Your task to perform on an android device: change the clock display to show seconds Image 0: 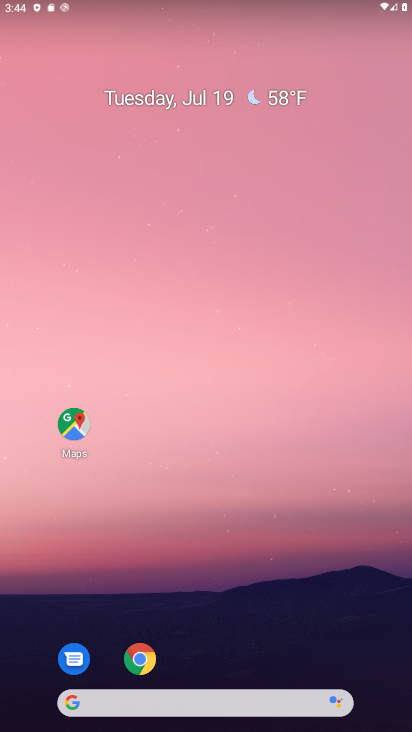
Step 0: drag from (165, 431) to (148, 321)
Your task to perform on an android device: change the clock display to show seconds Image 1: 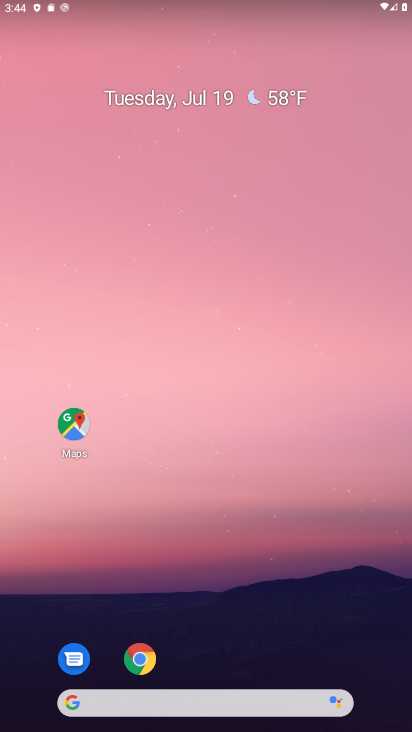
Step 1: click (157, 254)
Your task to perform on an android device: change the clock display to show seconds Image 2: 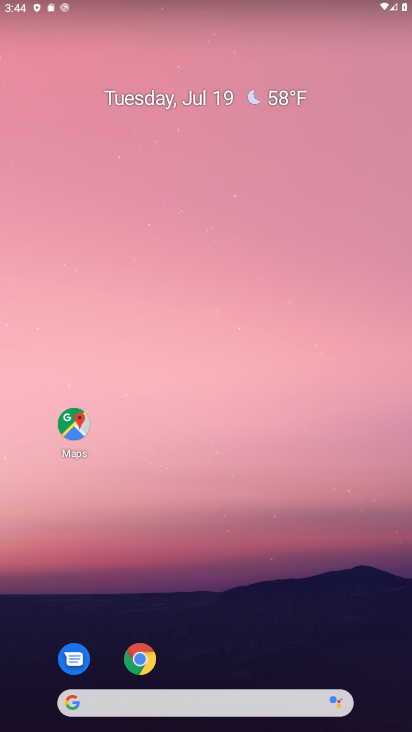
Step 2: drag from (202, 562) to (195, 194)
Your task to perform on an android device: change the clock display to show seconds Image 3: 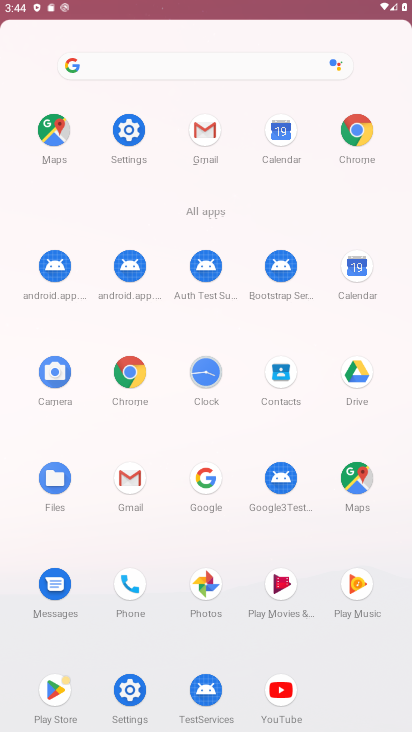
Step 3: drag from (246, 530) to (232, 178)
Your task to perform on an android device: change the clock display to show seconds Image 4: 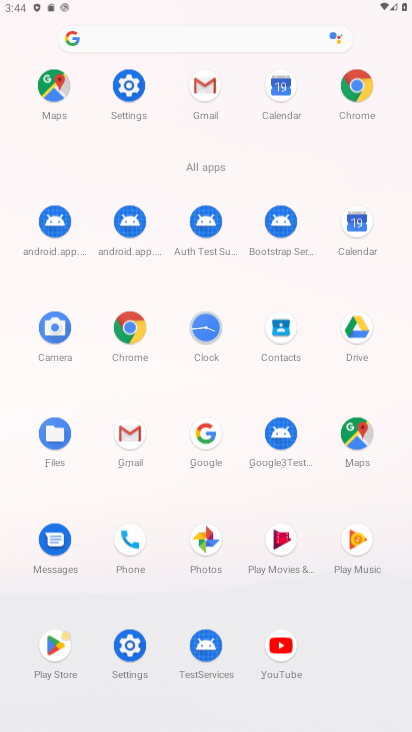
Step 4: click (224, 165)
Your task to perform on an android device: change the clock display to show seconds Image 5: 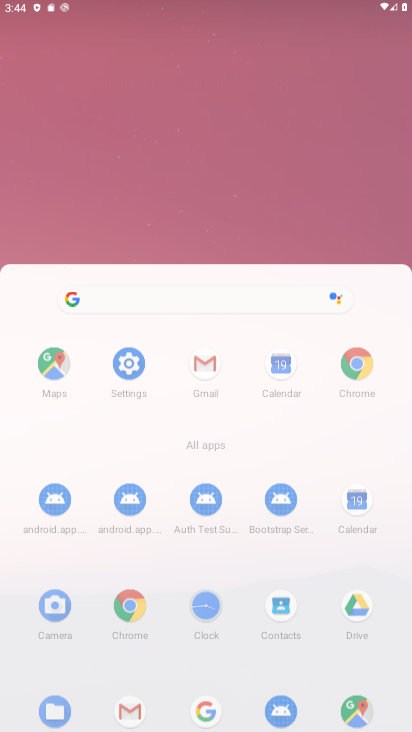
Step 5: click (235, 148)
Your task to perform on an android device: change the clock display to show seconds Image 6: 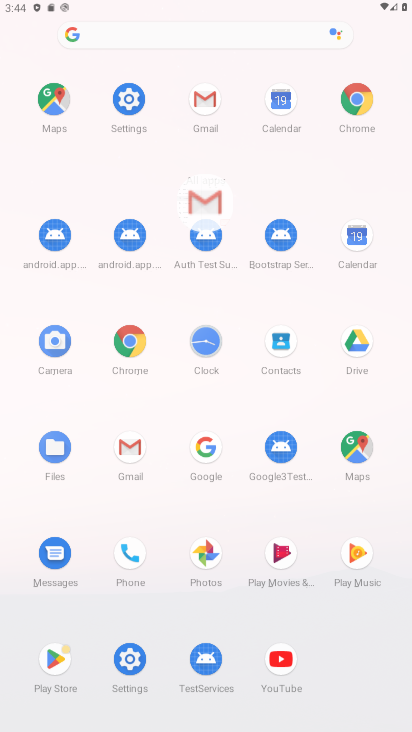
Step 6: click (210, 336)
Your task to perform on an android device: change the clock display to show seconds Image 7: 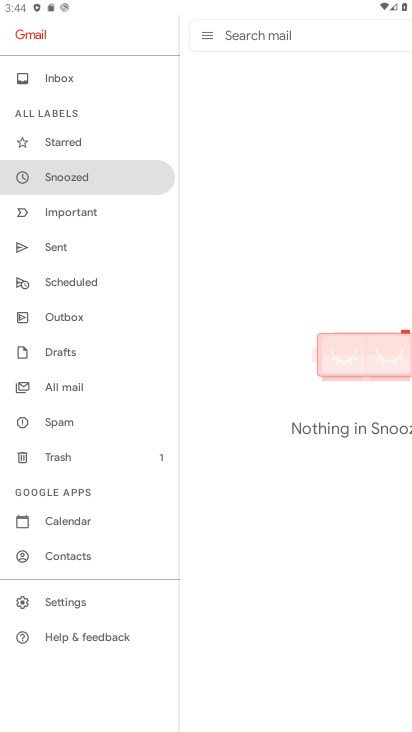
Step 7: click (210, 347)
Your task to perform on an android device: change the clock display to show seconds Image 8: 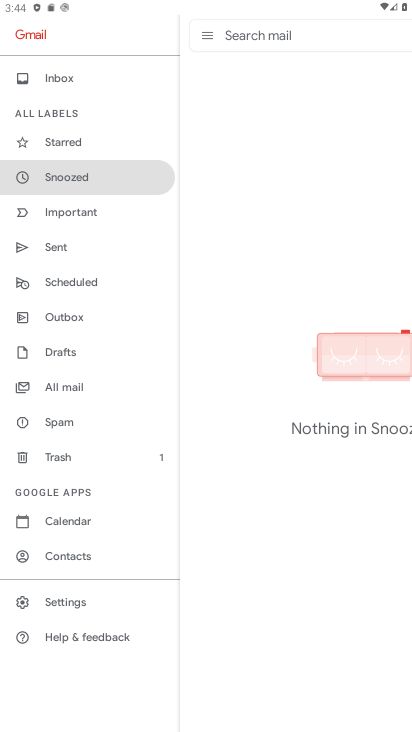
Step 8: press home button
Your task to perform on an android device: change the clock display to show seconds Image 9: 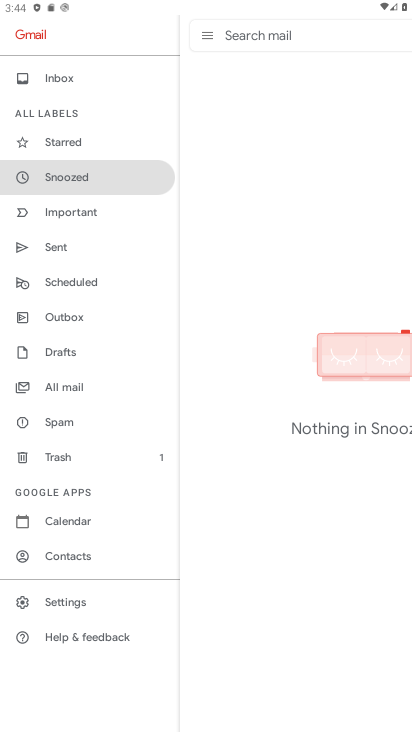
Step 9: press home button
Your task to perform on an android device: change the clock display to show seconds Image 10: 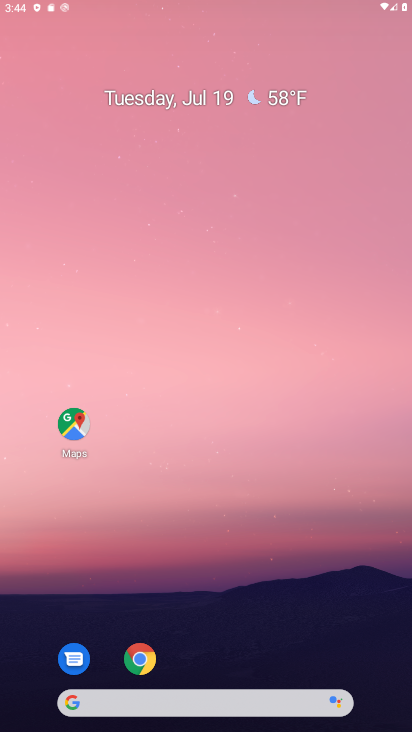
Step 10: press home button
Your task to perform on an android device: change the clock display to show seconds Image 11: 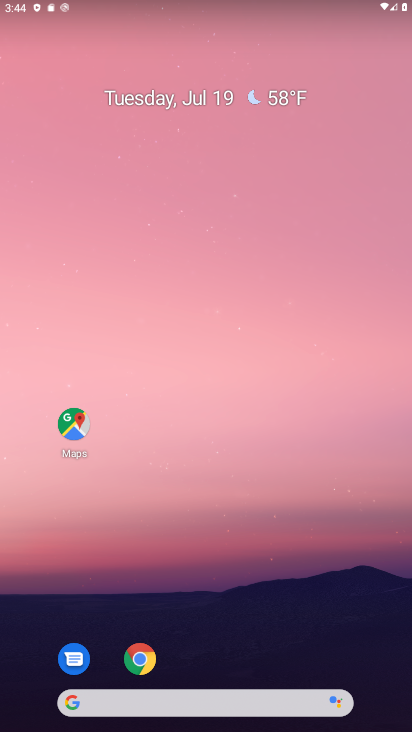
Step 11: drag from (231, 627) to (253, 247)
Your task to perform on an android device: change the clock display to show seconds Image 12: 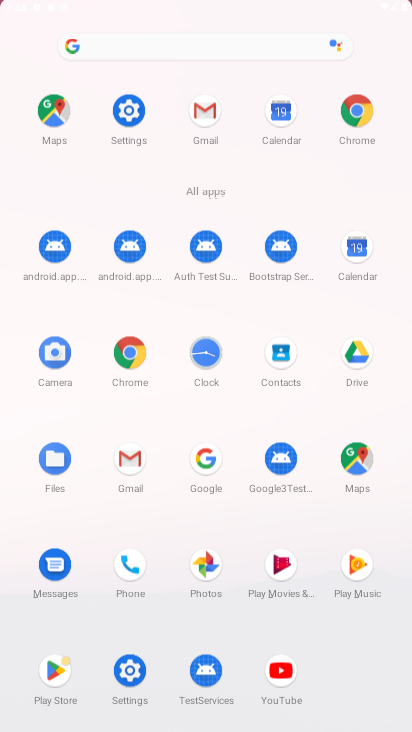
Step 12: drag from (235, 533) to (226, 138)
Your task to perform on an android device: change the clock display to show seconds Image 13: 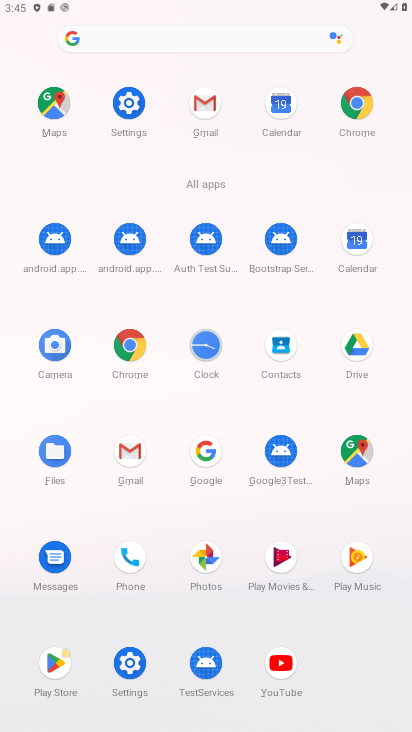
Step 13: click (218, 359)
Your task to perform on an android device: change the clock display to show seconds Image 14: 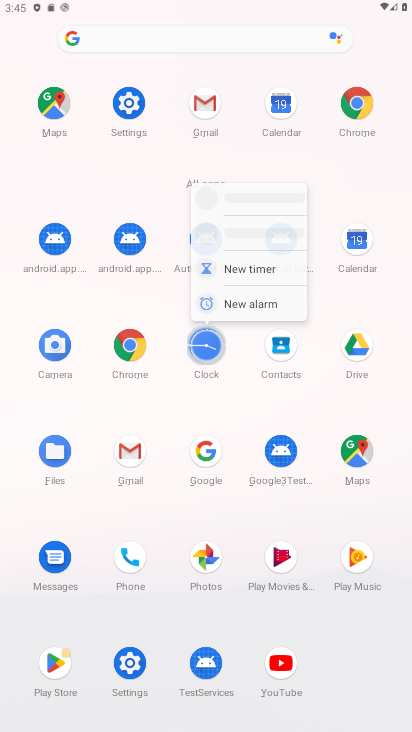
Step 14: click (216, 355)
Your task to perform on an android device: change the clock display to show seconds Image 15: 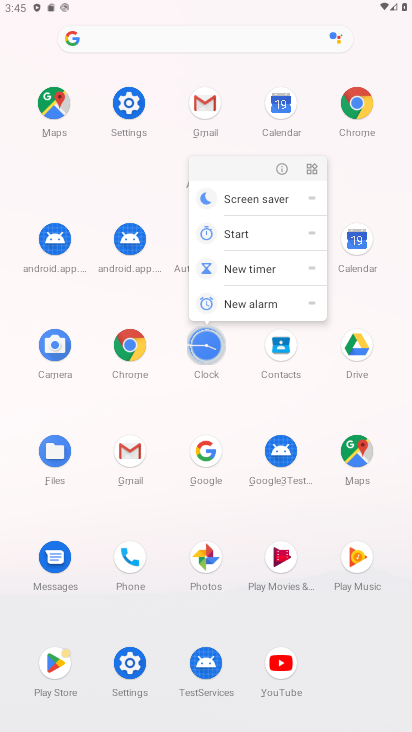
Step 15: click (216, 355)
Your task to perform on an android device: change the clock display to show seconds Image 16: 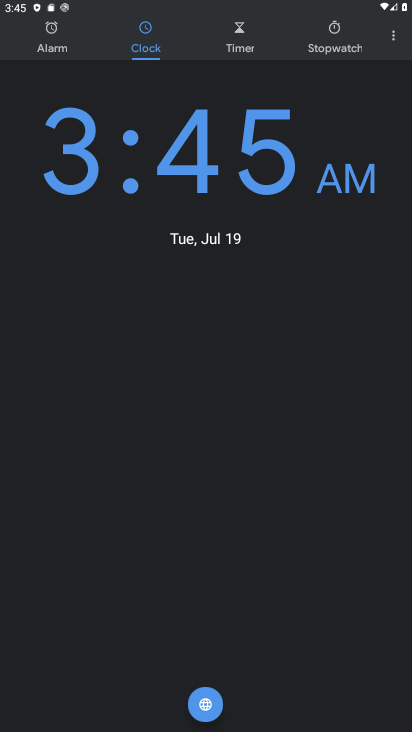
Step 16: click (355, 33)
Your task to perform on an android device: change the clock display to show seconds Image 17: 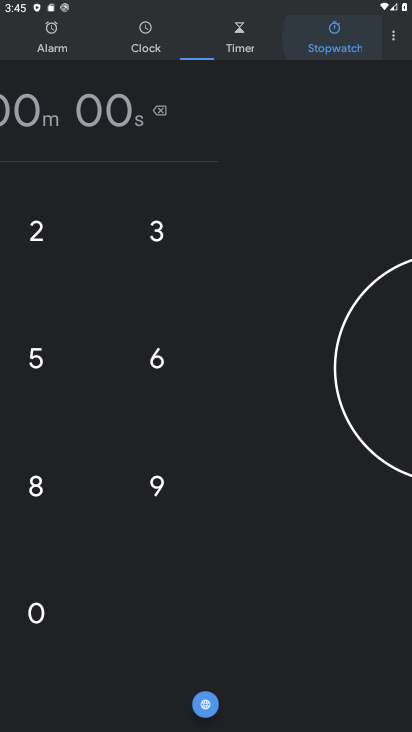
Step 17: click (354, 32)
Your task to perform on an android device: change the clock display to show seconds Image 18: 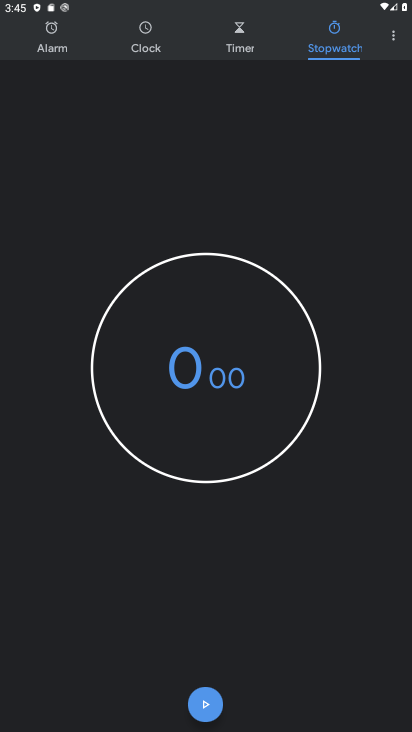
Step 18: click (210, 692)
Your task to perform on an android device: change the clock display to show seconds Image 19: 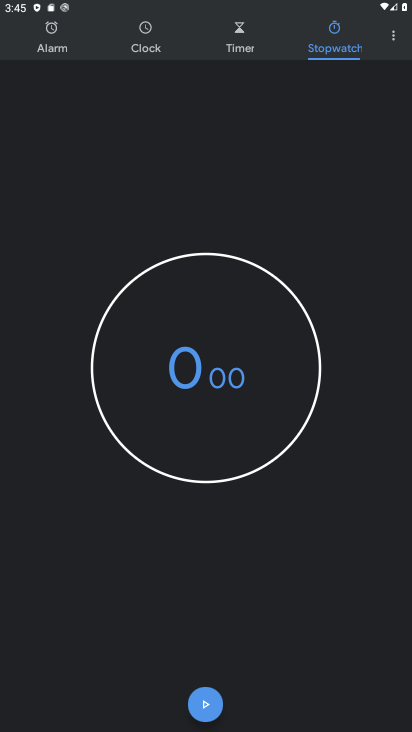
Step 19: click (210, 692)
Your task to perform on an android device: change the clock display to show seconds Image 20: 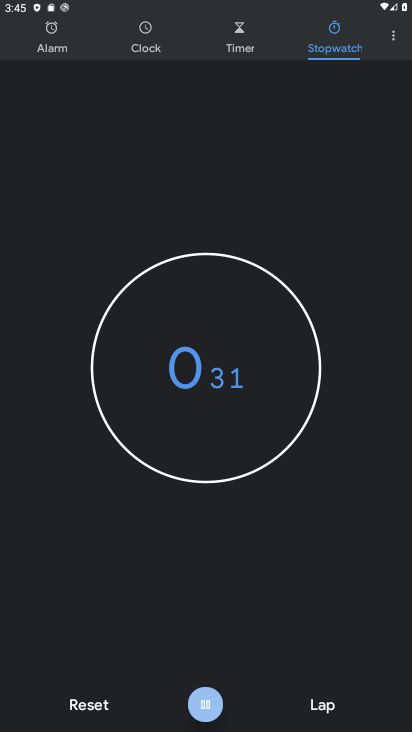
Step 20: click (210, 686)
Your task to perform on an android device: change the clock display to show seconds Image 21: 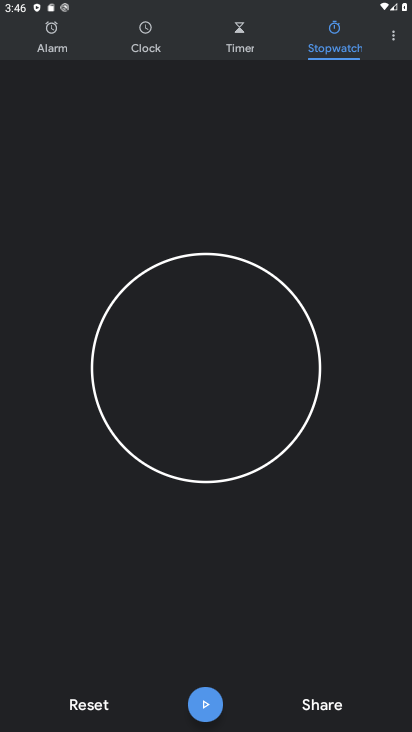
Step 21: click (208, 685)
Your task to perform on an android device: change the clock display to show seconds Image 22: 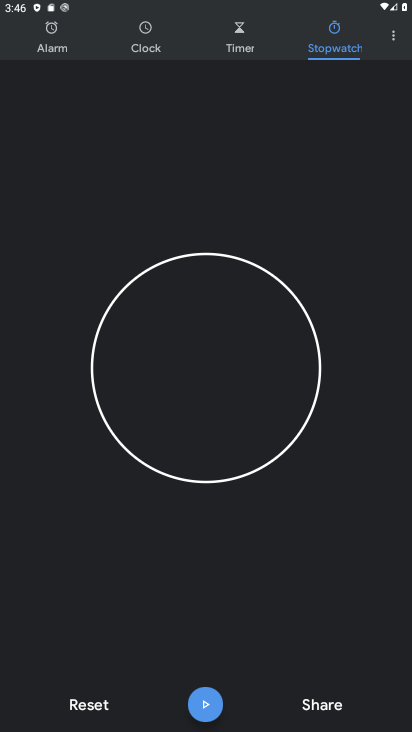
Step 22: click (208, 685)
Your task to perform on an android device: change the clock display to show seconds Image 23: 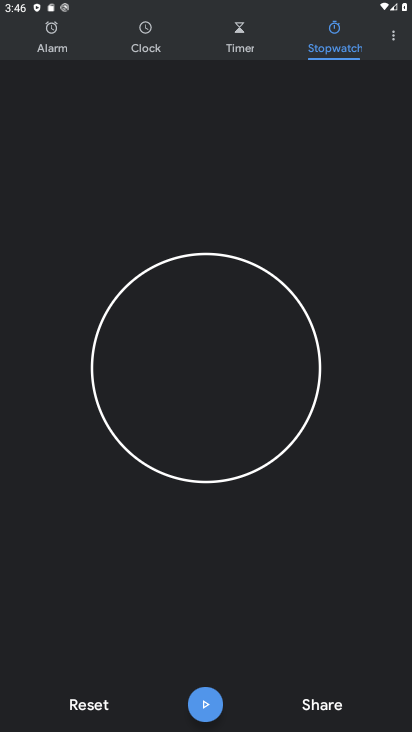
Step 23: click (195, 680)
Your task to perform on an android device: change the clock display to show seconds Image 24: 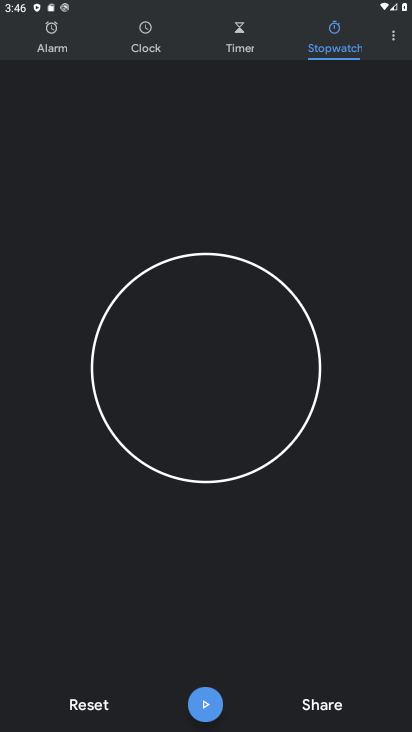
Step 24: click (196, 682)
Your task to perform on an android device: change the clock display to show seconds Image 25: 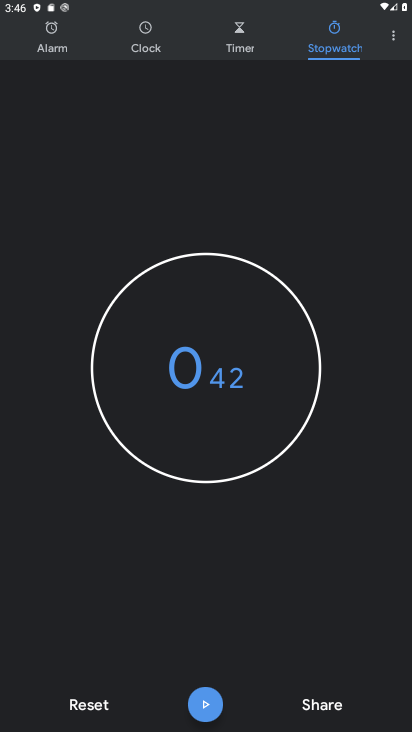
Step 25: drag from (391, 30) to (110, 317)
Your task to perform on an android device: change the clock display to show seconds Image 26: 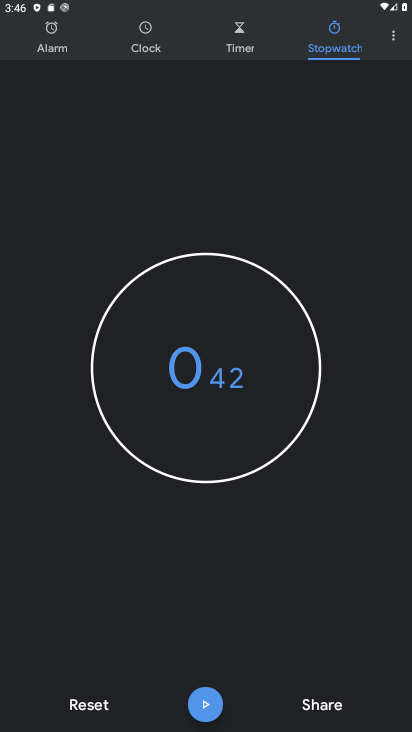
Step 26: click (386, 31)
Your task to perform on an android device: change the clock display to show seconds Image 27: 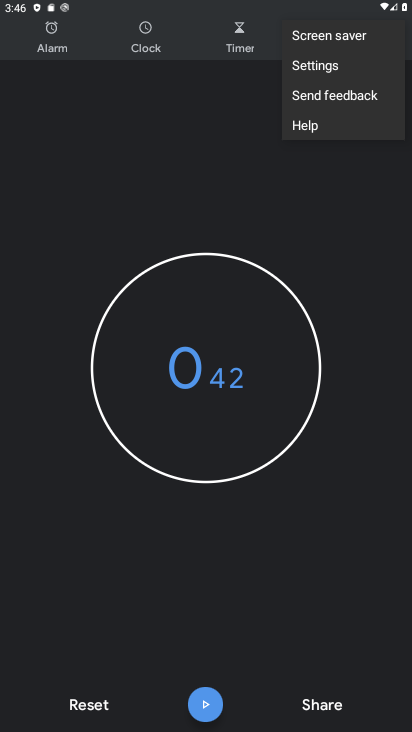
Step 27: click (220, 701)
Your task to perform on an android device: change the clock display to show seconds Image 28: 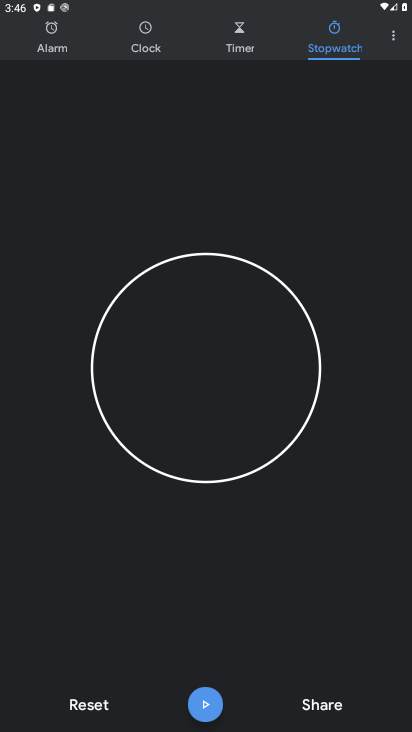
Step 28: click (212, 707)
Your task to perform on an android device: change the clock display to show seconds Image 29: 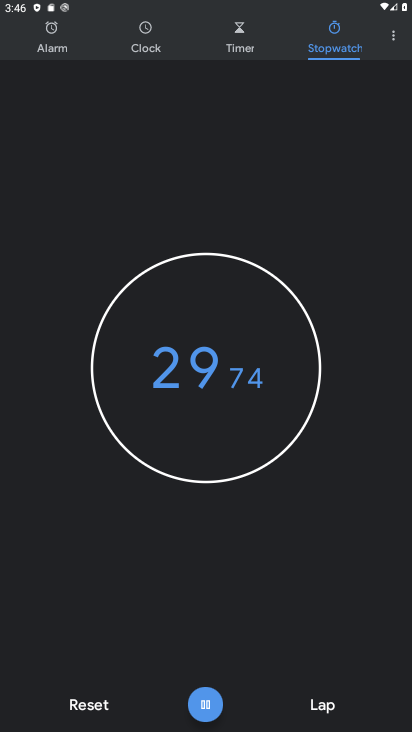
Step 29: click (387, 35)
Your task to perform on an android device: change the clock display to show seconds Image 30: 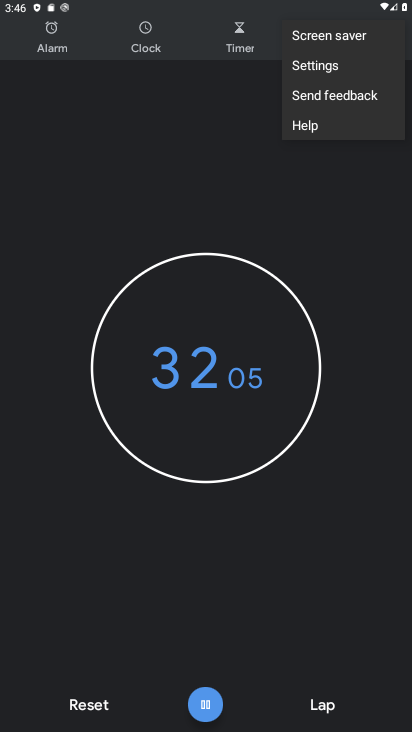
Step 30: click (308, 81)
Your task to perform on an android device: change the clock display to show seconds Image 31: 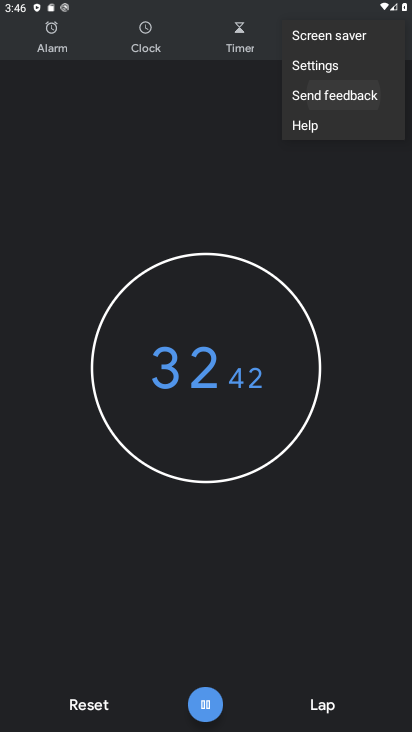
Step 31: click (309, 77)
Your task to perform on an android device: change the clock display to show seconds Image 32: 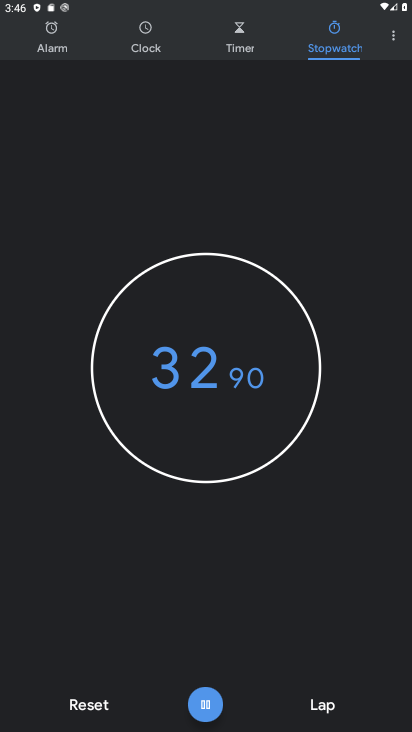
Step 32: click (309, 77)
Your task to perform on an android device: change the clock display to show seconds Image 33: 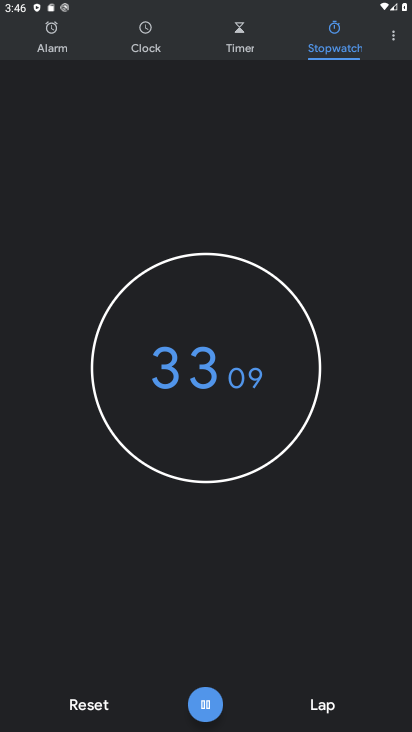
Step 33: click (309, 77)
Your task to perform on an android device: change the clock display to show seconds Image 34: 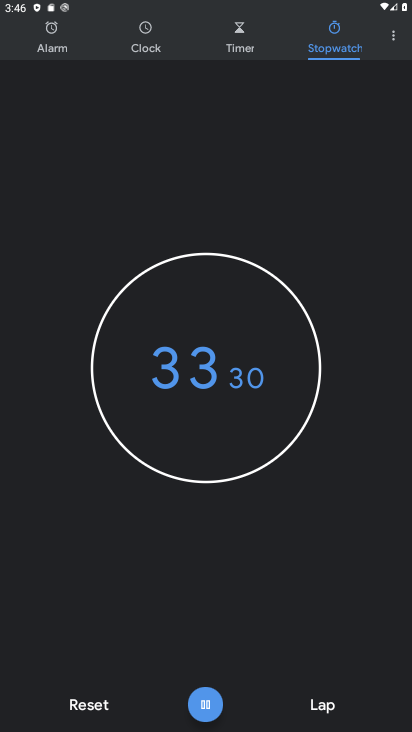
Step 34: click (308, 76)
Your task to perform on an android device: change the clock display to show seconds Image 35: 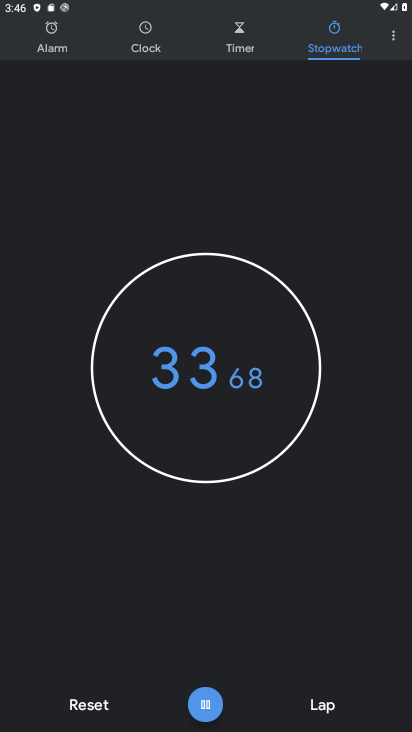
Step 35: click (306, 78)
Your task to perform on an android device: change the clock display to show seconds Image 36: 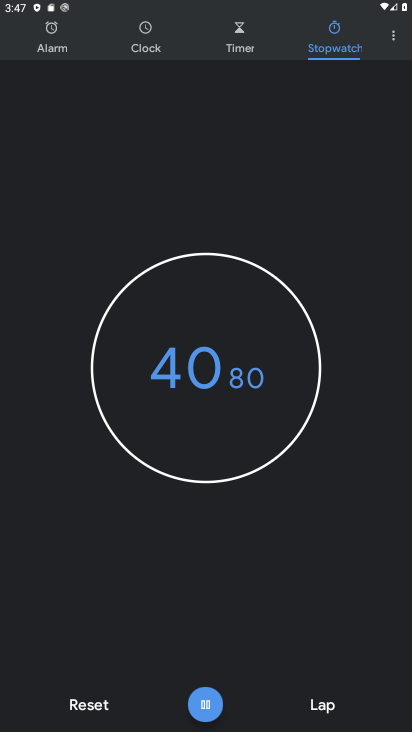
Step 36: drag from (390, 42) to (300, 287)
Your task to perform on an android device: change the clock display to show seconds Image 37: 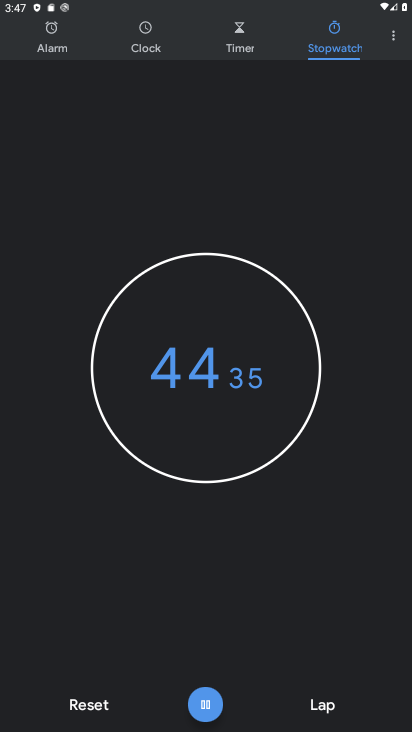
Step 37: click (328, 60)
Your task to perform on an android device: change the clock display to show seconds Image 38: 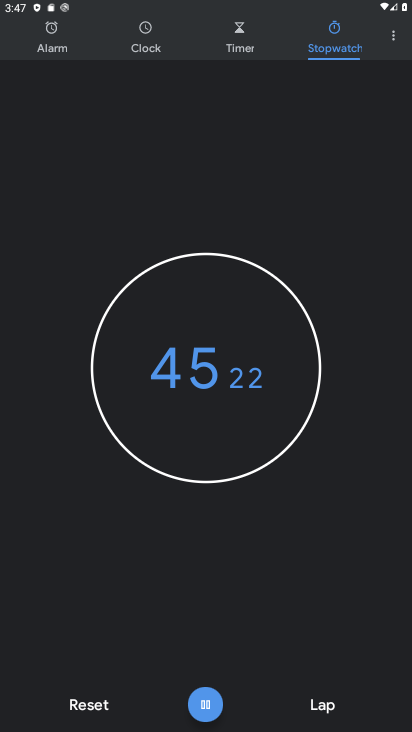
Step 38: drag from (385, 36) to (305, 62)
Your task to perform on an android device: change the clock display to show seconds Image 39: 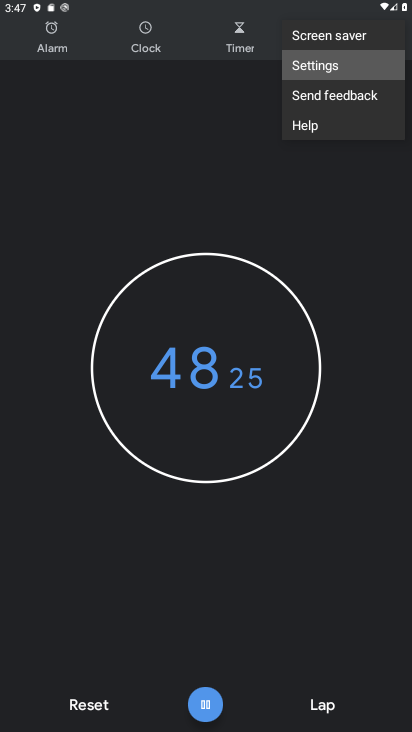
Step 39: click (304, 63)
Your task to perform on an android device: change the clock display to show seconds Image 40: 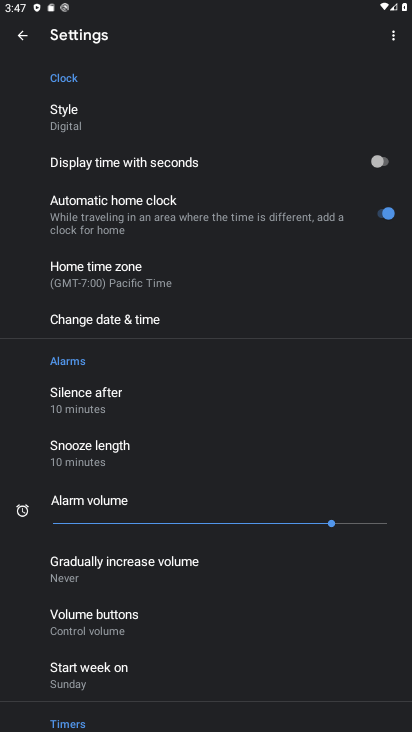
Step 40: click (380, 154)
Your task to perform on an android device: change the clock display to show seconds Image 41: 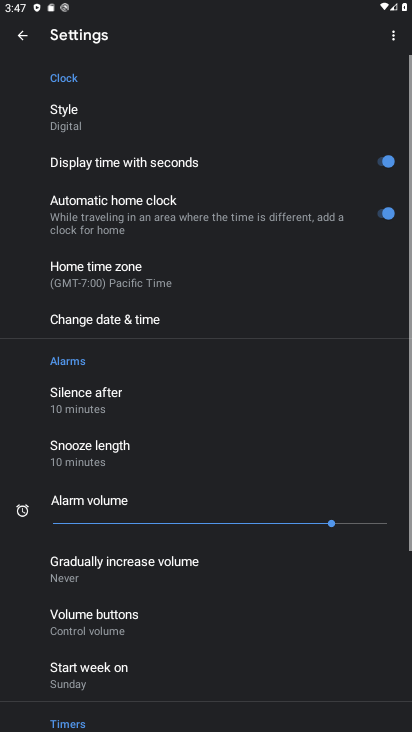
Step 41: task complete